Your task to perform on an android device: delete the emails in spam in the gmail app Image 0: 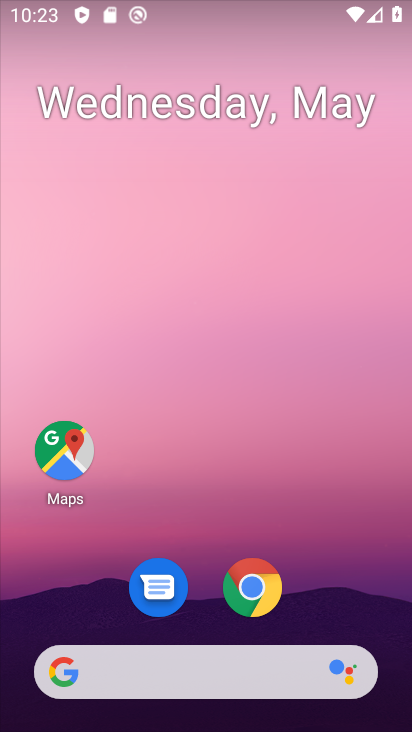
Step 0: drag from (323, 606) to (284, 190)
Your task to perform on an android device: delete the emails in spam in the gmail app Image 1: 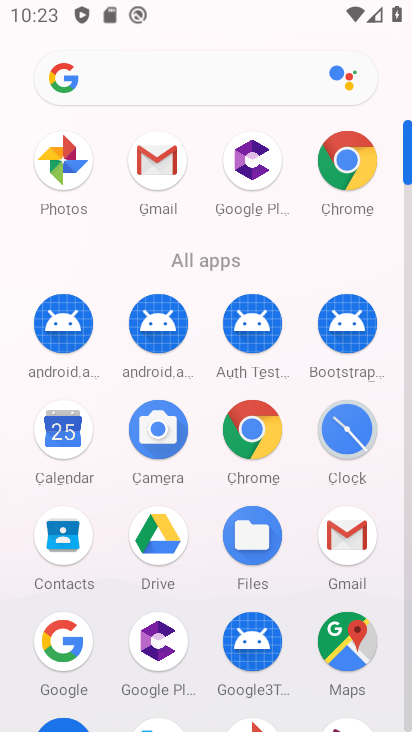
Step 1: click (170, 161)
Your task to perform on an android device: delete the emails in spam in the gmail app Image 2: 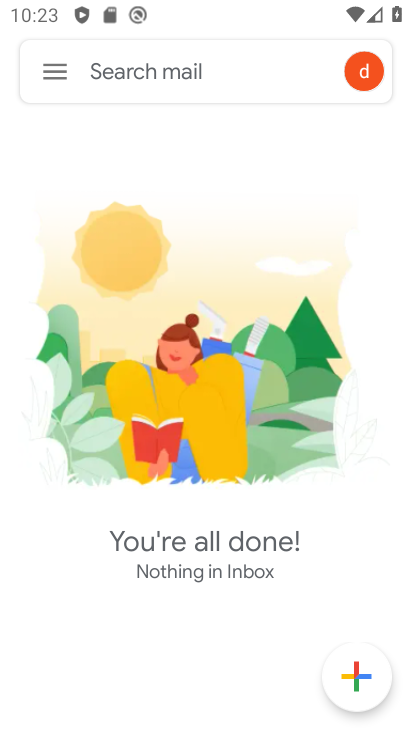
Step 2: click (38, 69)
Your task to perform on an android device: delete the emails in spam in the gmail app Image 3: 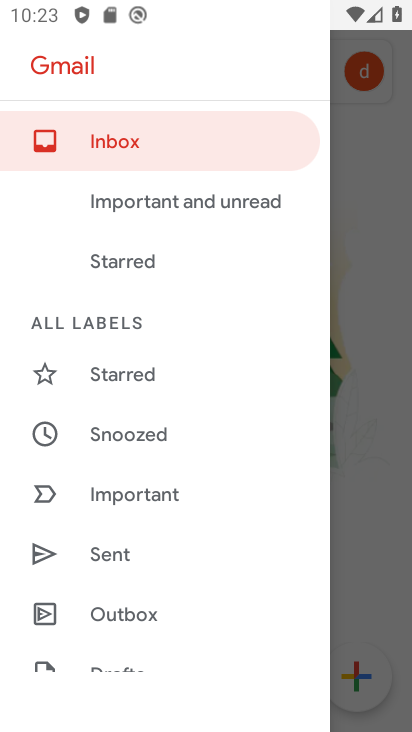
Step 3: task complete